Your task to perform on an android device: Open the calendar and show me this week's events Image 0: 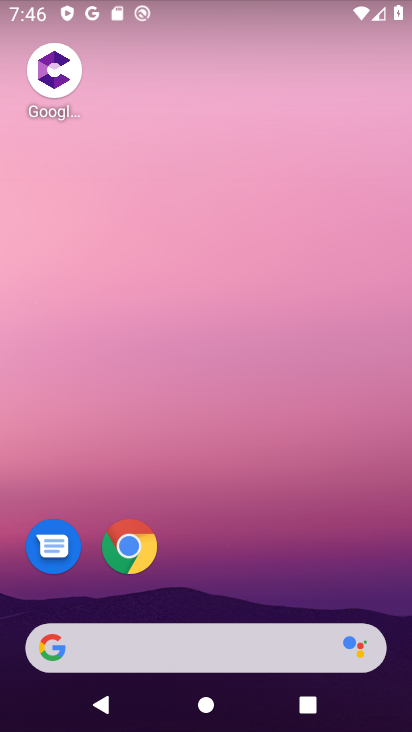
Step 0: drag from (238, 548) to (253, 55)
Your task to perform on an android device: Open the calendar and show me this week's events Image 1: 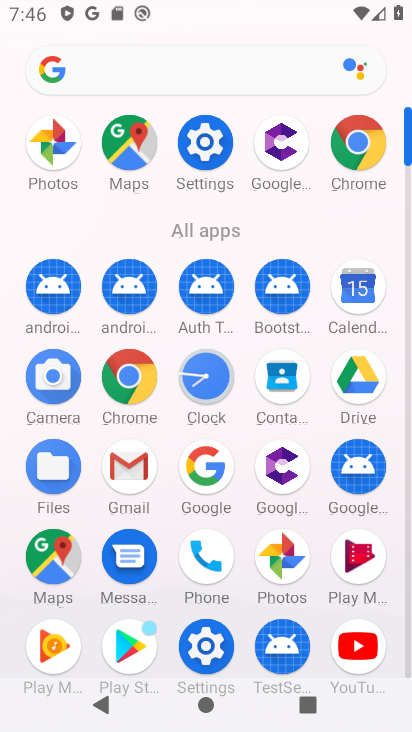
Step 1: click (361, 285)
Your task to perform on an android device: Open the calendar and show me this week's events Image 2: 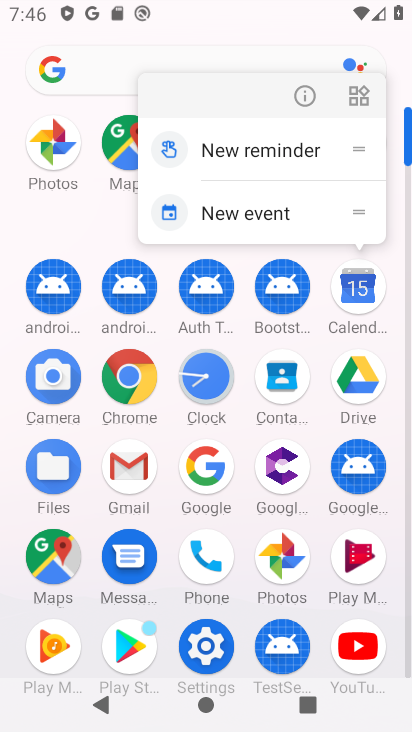
Step 2: click (358, 286)
Your task to perform on an android device: Open the calendar and show me this week's events Image 3: 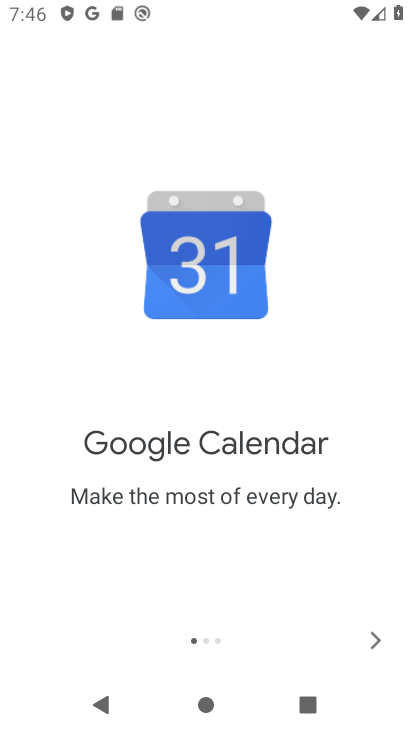
Step 3: click (374, 638)
Your task to perform on an android device: Open the calendar and show me this week's events Image 4: 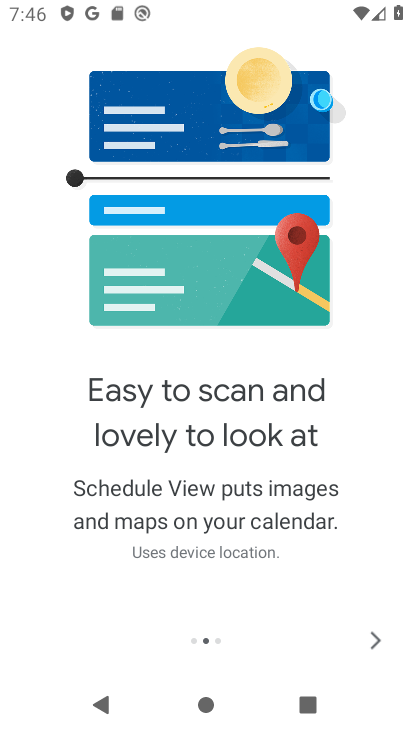
Step 4: click (377, 641)
Your task to perform on an android device: Open the calendar and show me this week's events Image 5: 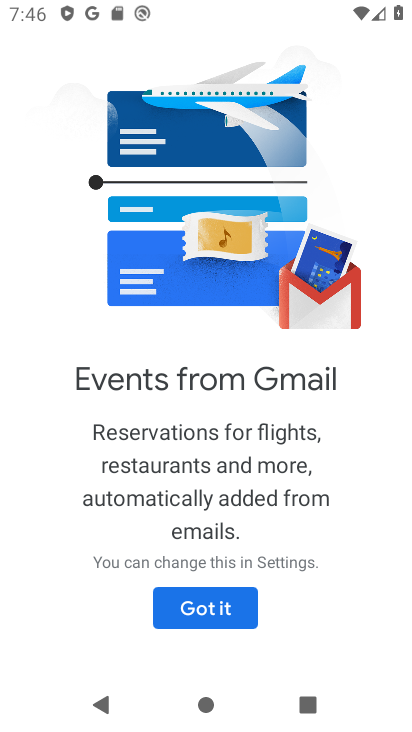
Step 5: click (247, 601)
Your task to perform on an android device: Open the calendar and show me this week's events Image 6: 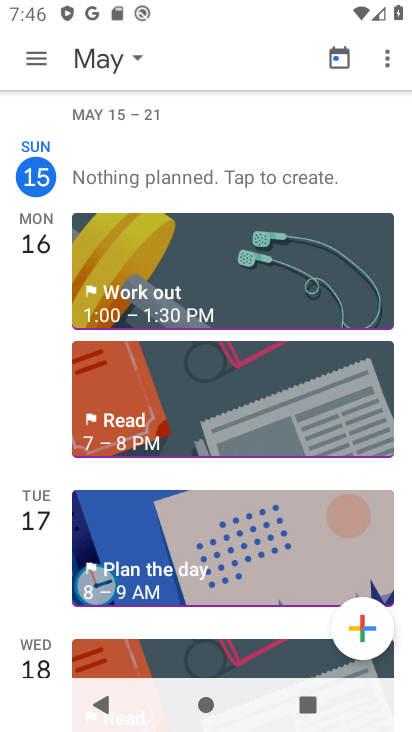
Step 6: drag from (206, 557) to (274, 108)
Your task to perform on an android device: Open the calendar and show me this week's events Image 7: 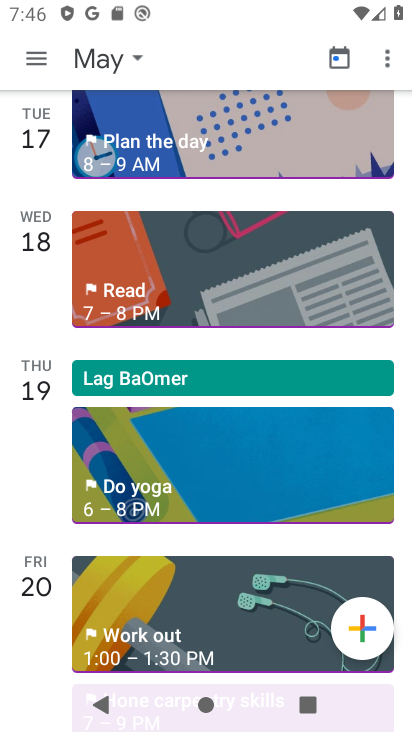
Step 7: drag from (216, 437) to (276, 145)
Your task to perform on an android device: Open the calendar and show me this week's events Image 8: 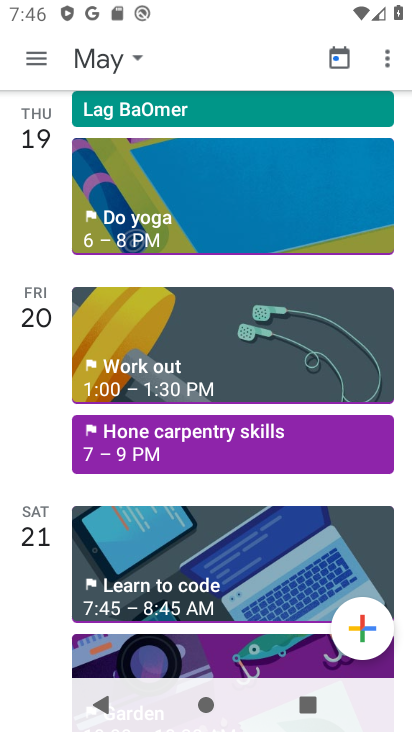
Step 8: click (34, 57)
Your task to perform on an android device: Open the calendar and show me this week's events Image 9: 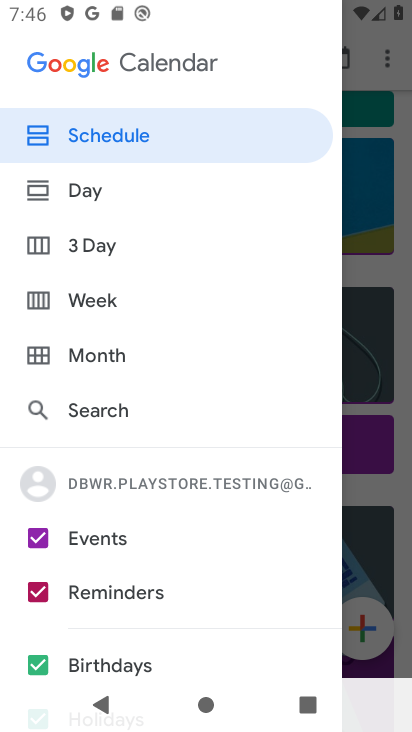
Step 9: click (73, 289)
Your task to perform on an android device: Open the calendar and show me this week's events Image 10: 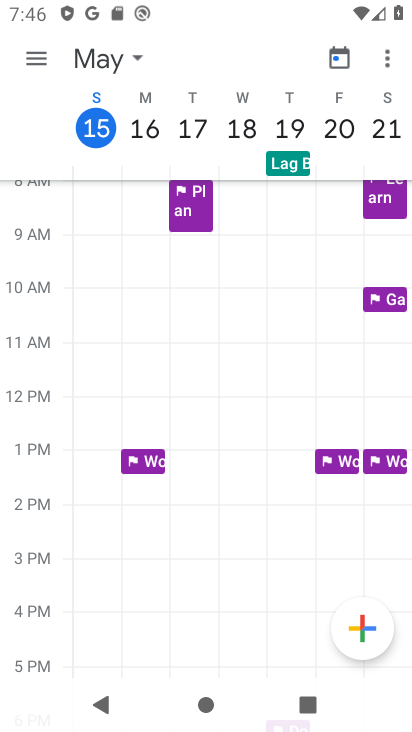
Step 10: task complete